Your task to perform on an android device: open app "Spotify" (install if not already installed) Image 0: 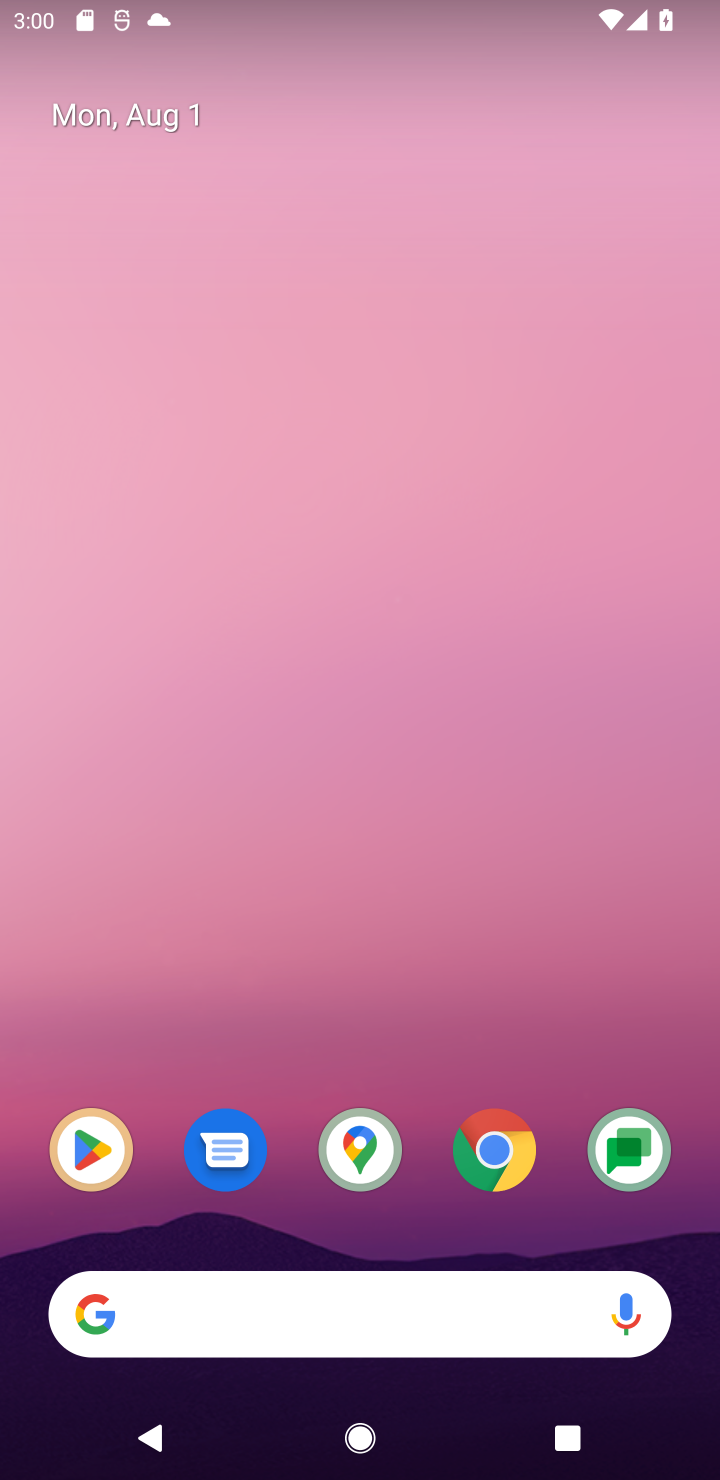
Step 0: drag from (390, 1246) to (394, 161)
Your task to perform on an android device: open app "Spotify" (install if not already installed) Image 1: 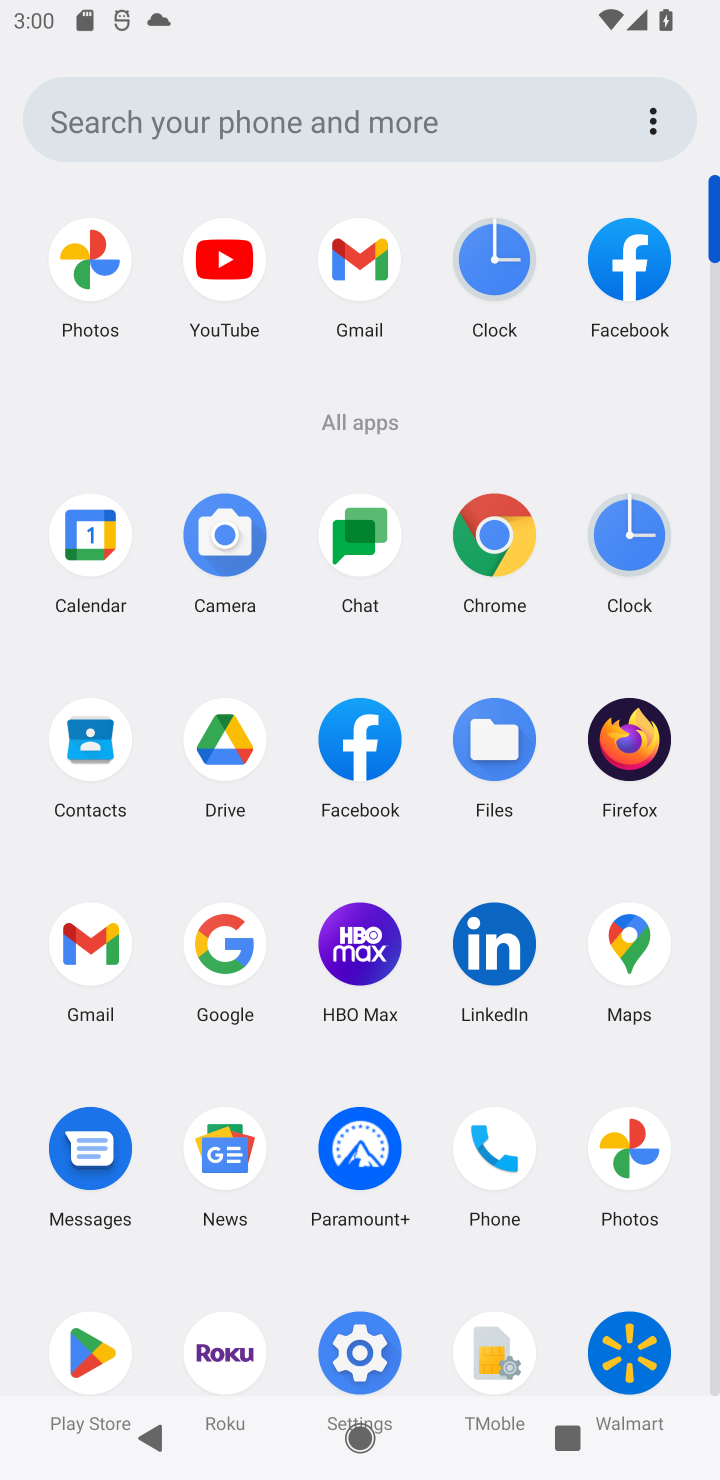
Step 1: click (94, 1350)
Your task to perform on an android device: open app "Spotify" (install if not already installed) Image 2: 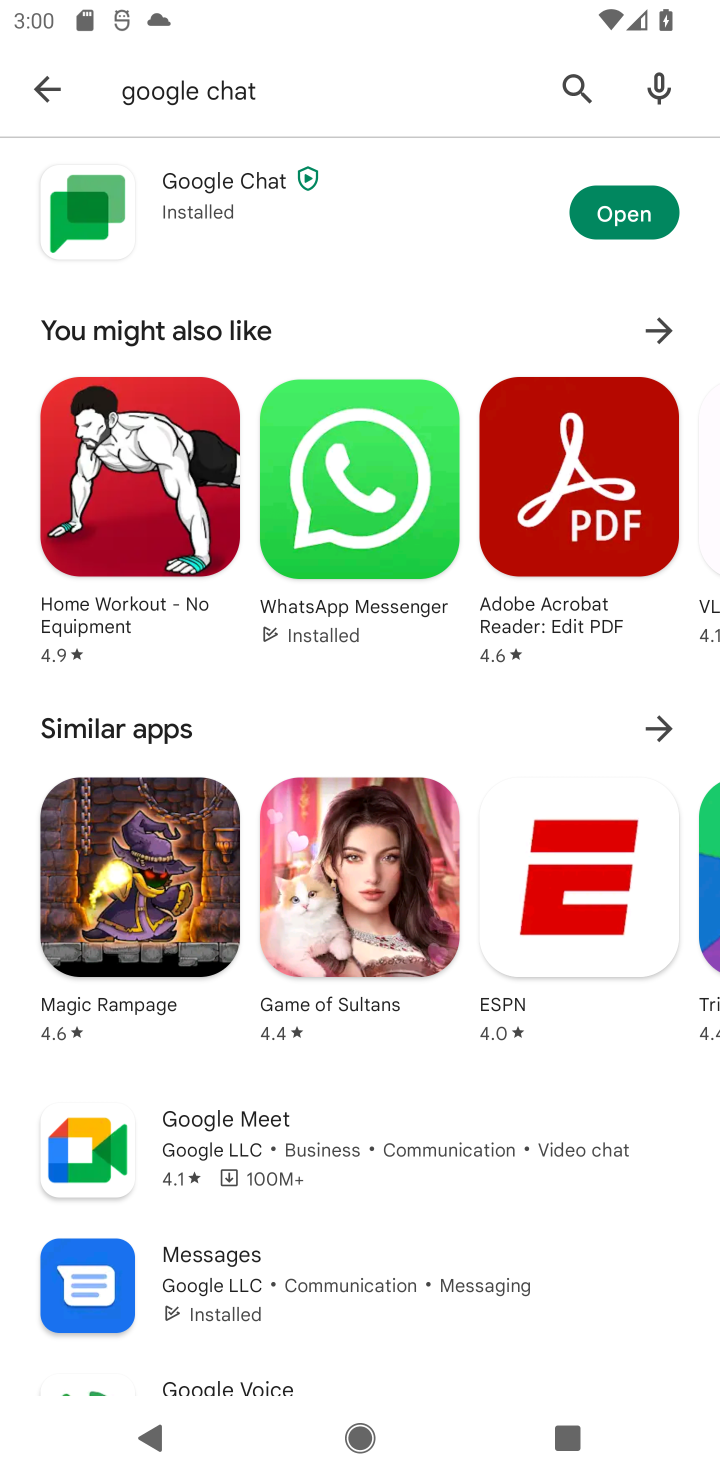
Step 2: click (576, 88)
Your task to perform on an android device: open app "Spotify" (install if not already installed) Image 3: 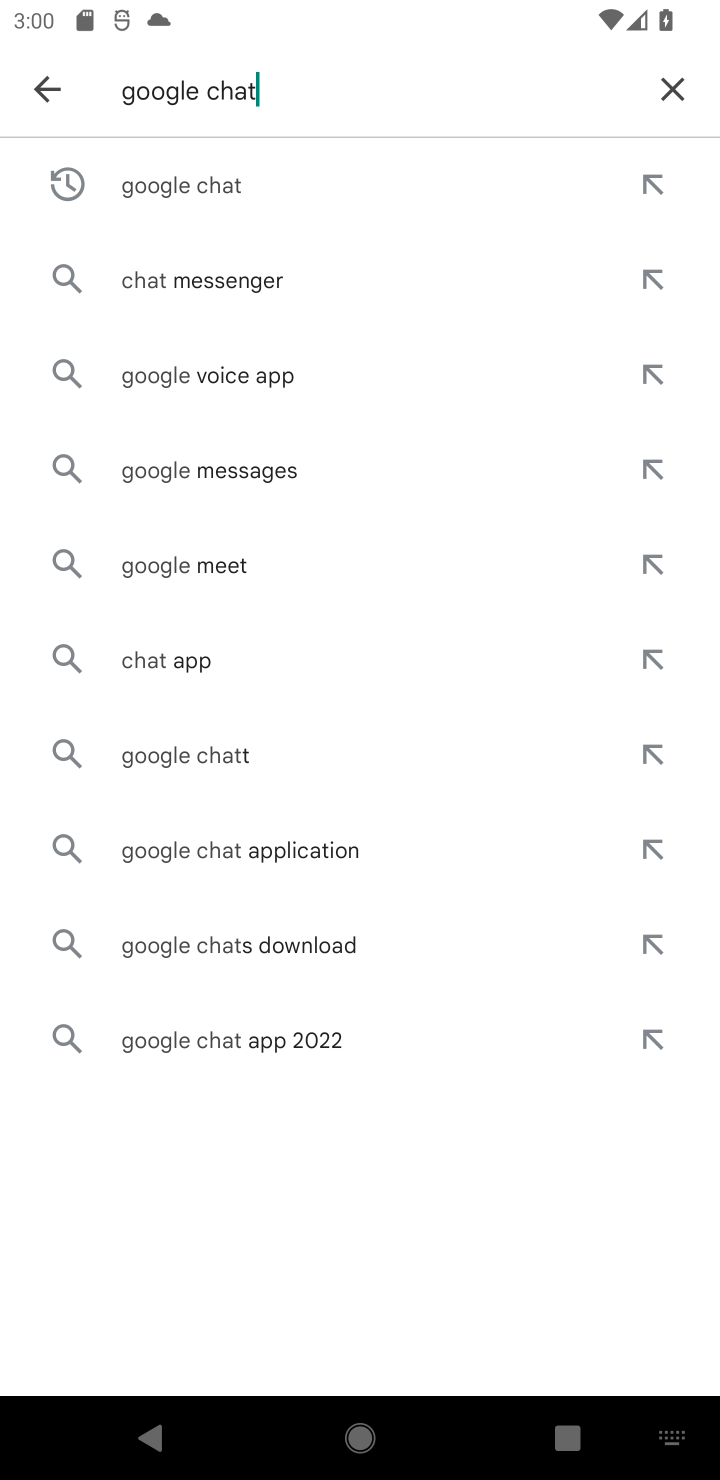
Step 3: click (661, 100)
Your task to perform on an android device: open app "Spotify" (install if not already installed) Image 4: 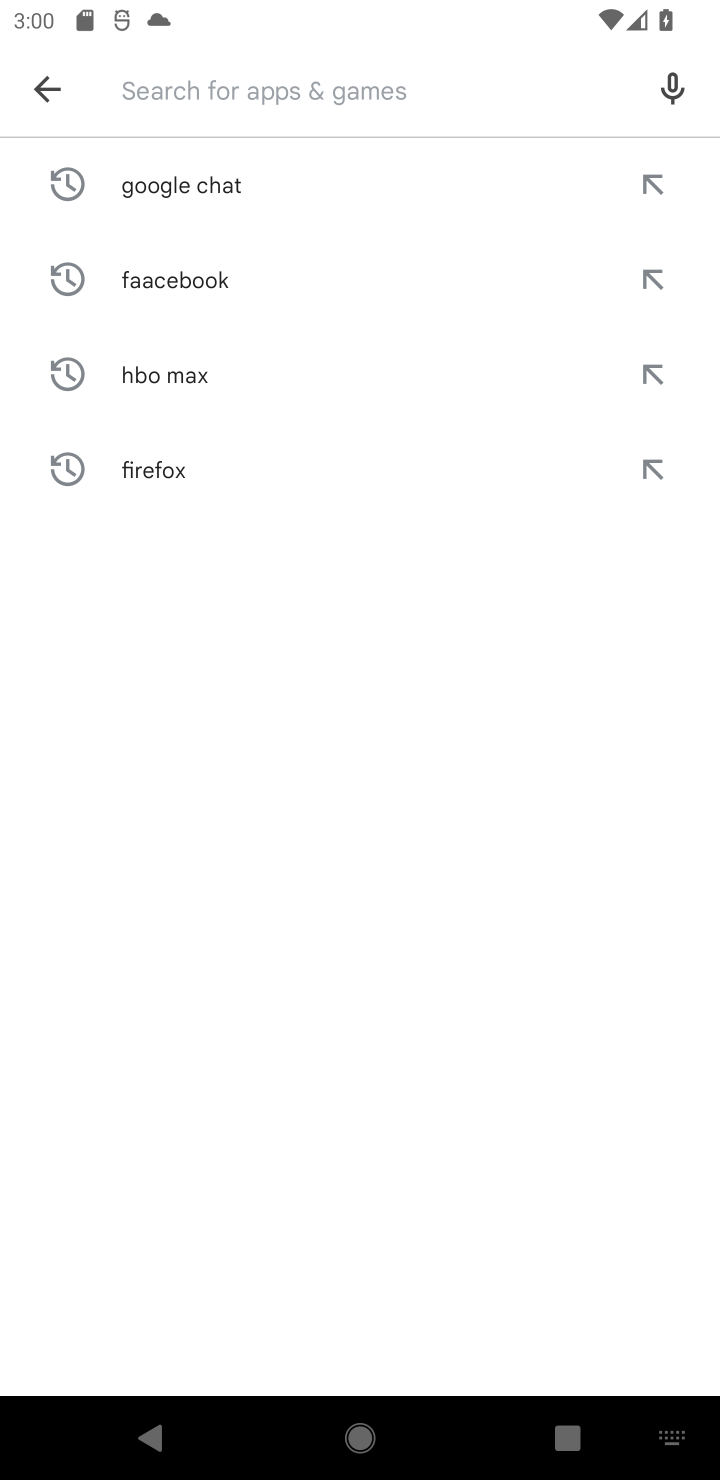
Step 4: type "spotify"
Your task to perform on an android device: open app "Spotify" (install if not already installed) Image 5: 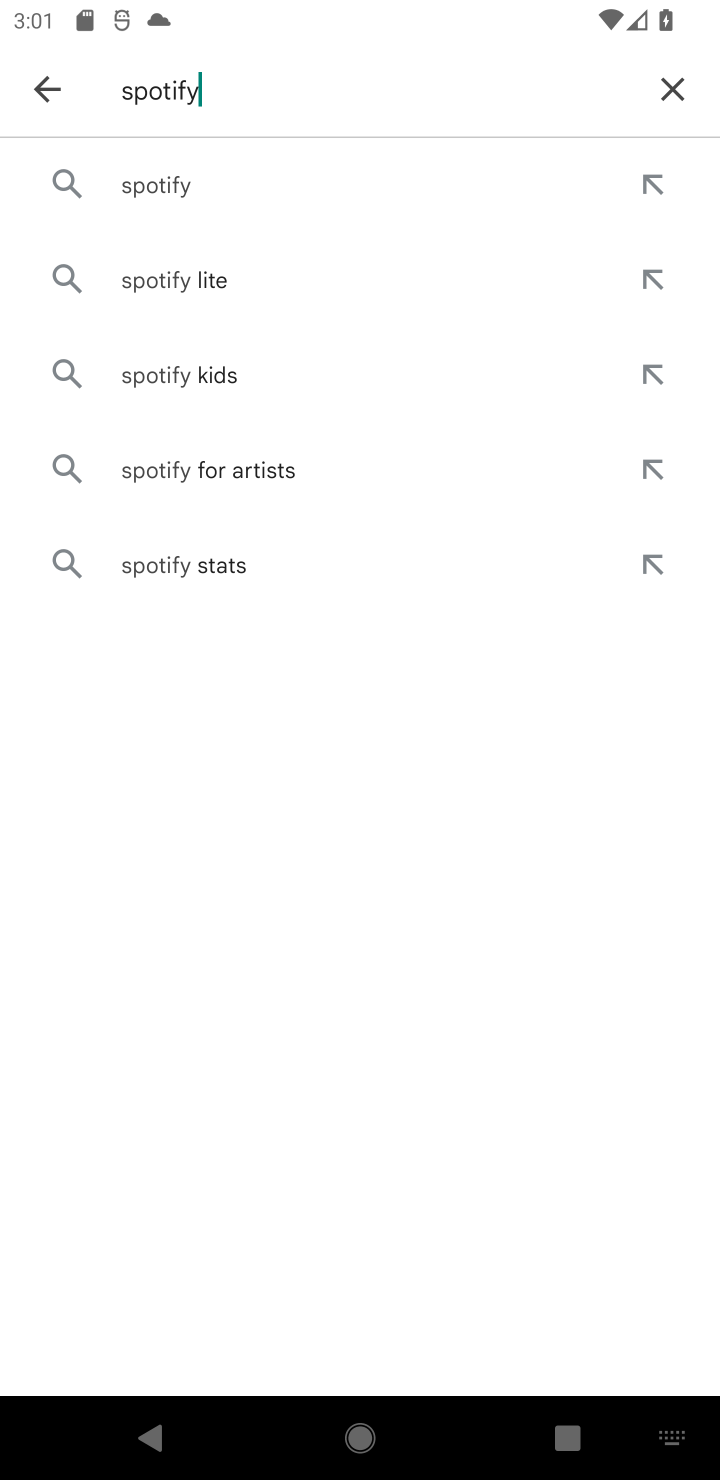
Step 5: click (385, 178)
Your task to perform on an android device: open app "Spotify" (install if not already installed) Image 6: 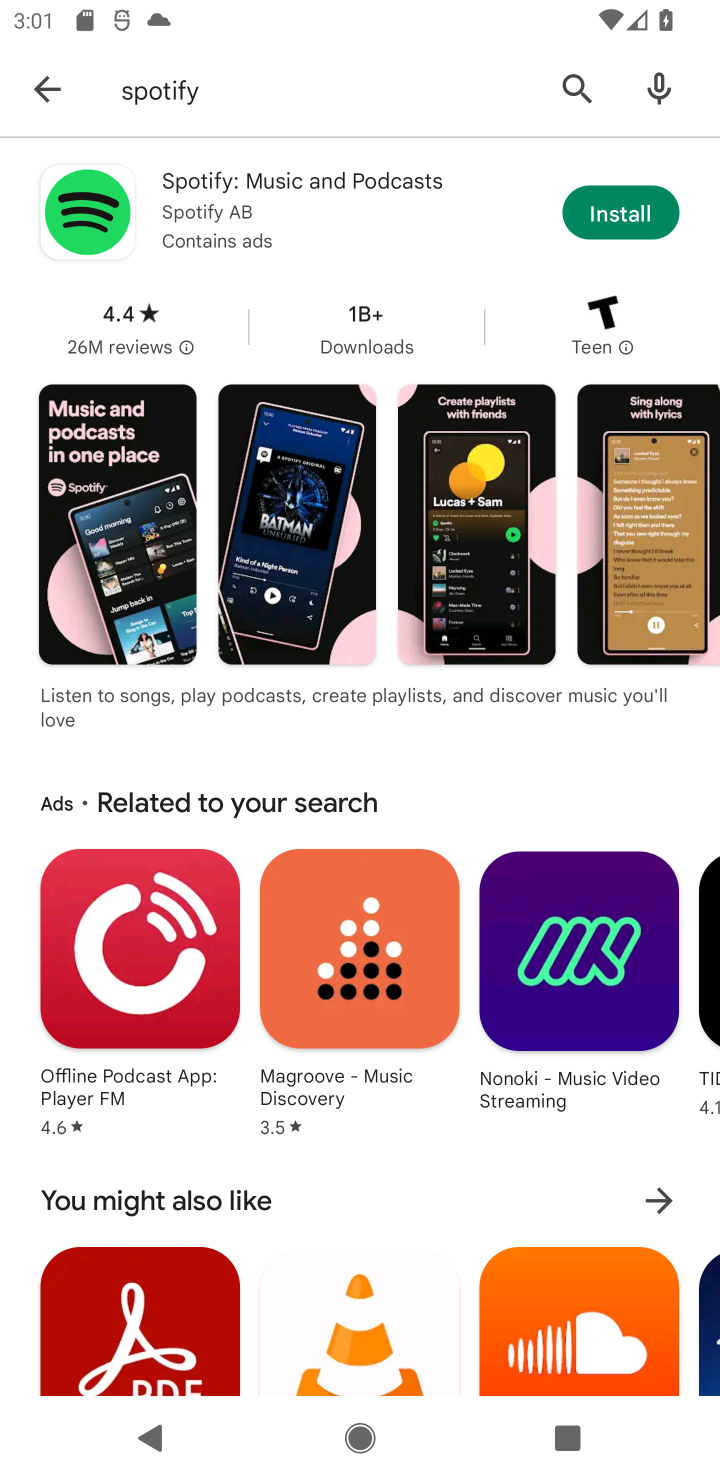
Step 6: click (640, 235)
Your task to perform on an android device: open app "Spotify" (install if not already installed) Image 7: 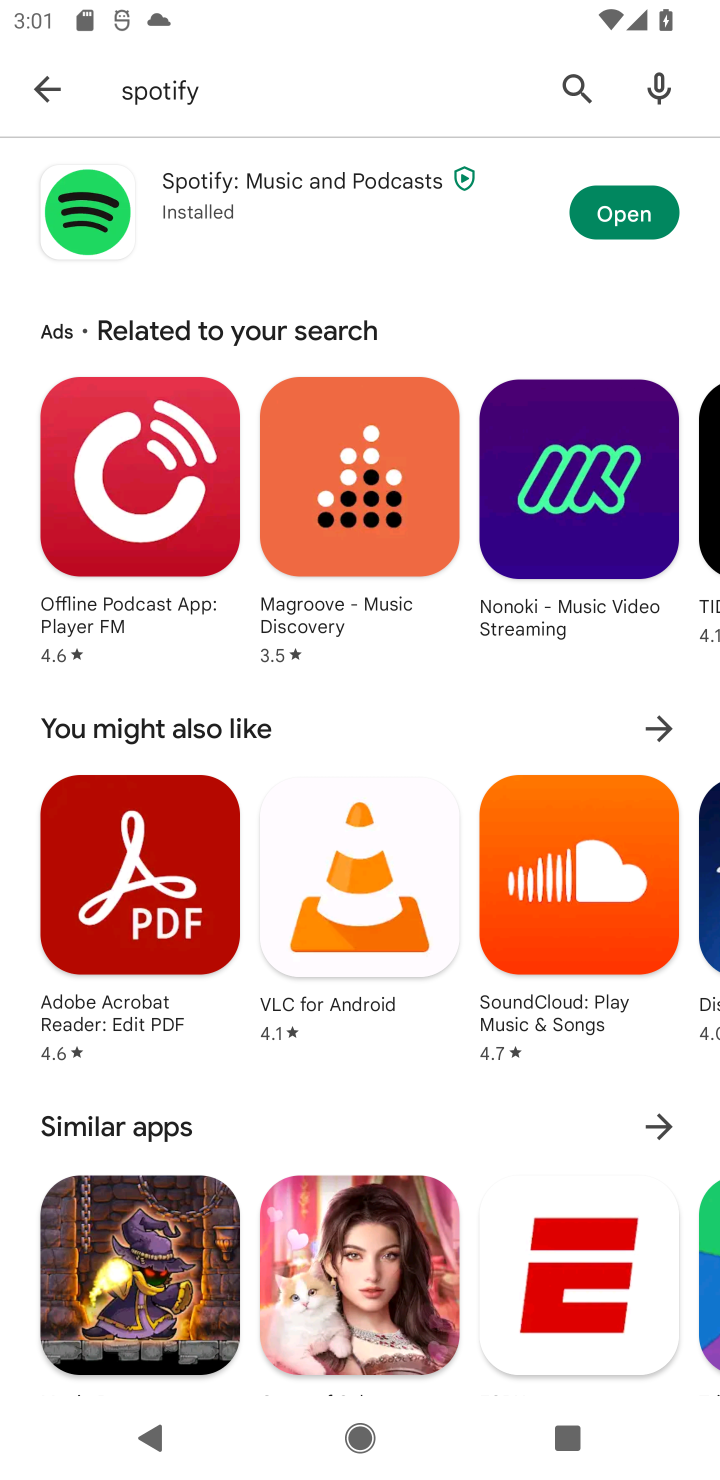
Step 7: task complete